Your task to perform on an android device: turn off priority inbox in the gmail app Image 0: 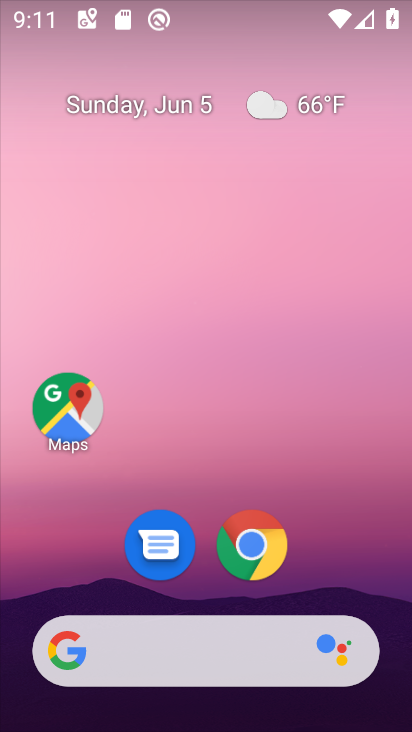
Step 0: drag from (359, 555) to (372, 95)
Your task to perform on an android device: turn off priority inbox in the gmail app Image 1: 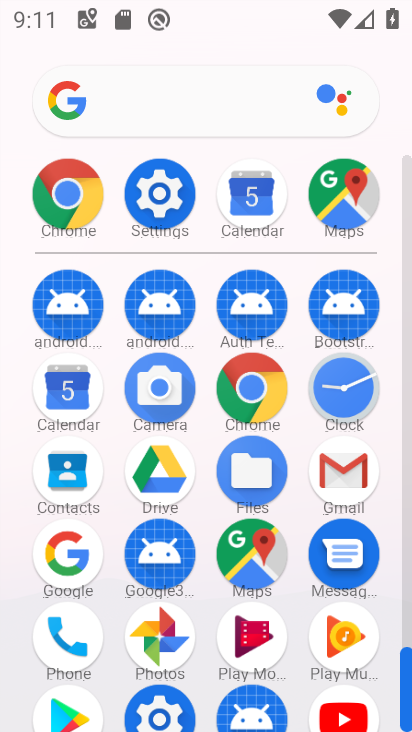
Step 1: click (345, 466)
Your task to perform on an android device: turn off priority inbox in the gmail app Image 2: 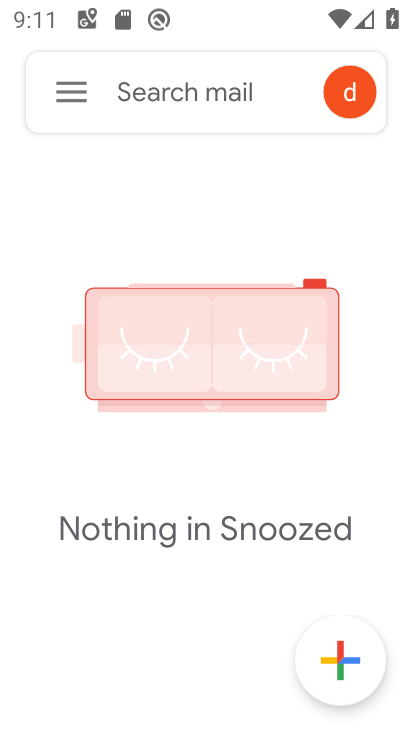
Step 2: click (73, 96)
Your task to perform on an android device: turn off priority inbox in the gmail app Image 3: 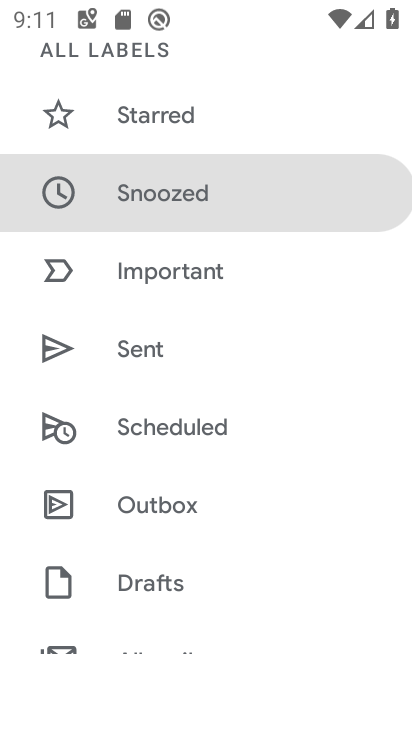
Step 3: drag from (292, 251) to (298, 323)
Your task to perform on an android device: turn off priority inbox in the gmail app Image 4: 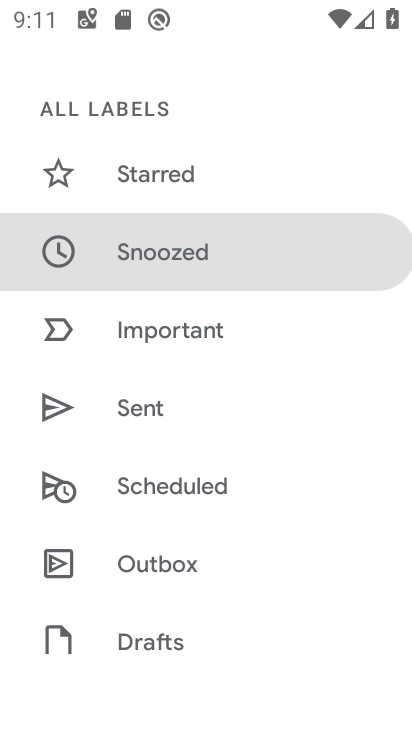
Step 4: drag from (310, 176) to (313, 290)
Your task to perform on an android device: turn off priority inbox in the gmail app Image 5: 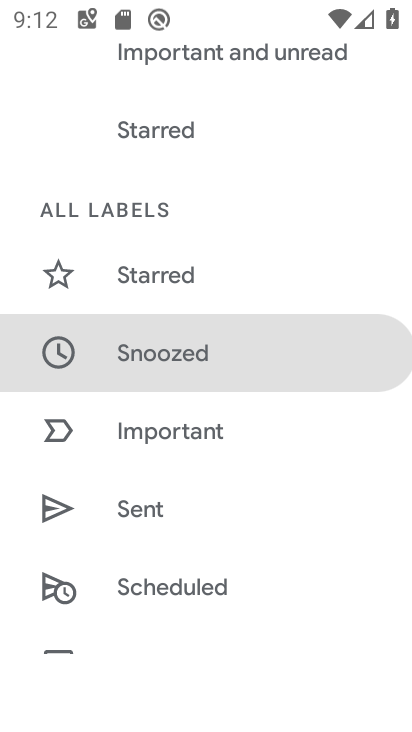
Step 5: drag from (315, 127) to (312, 259)
Your task to perform on an android device: turn off priority inbox in the gmail app Image 6: 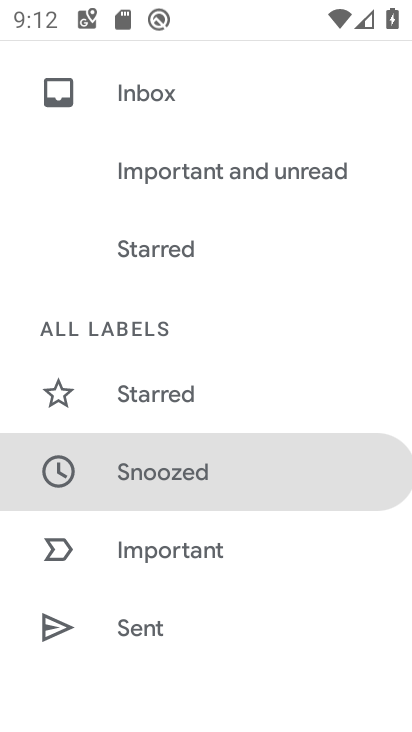
Step 6: drag from (324, 108) to (320, 327)
Your task to perform on an android device: turn off priority inbox in the gmail app Image 7: 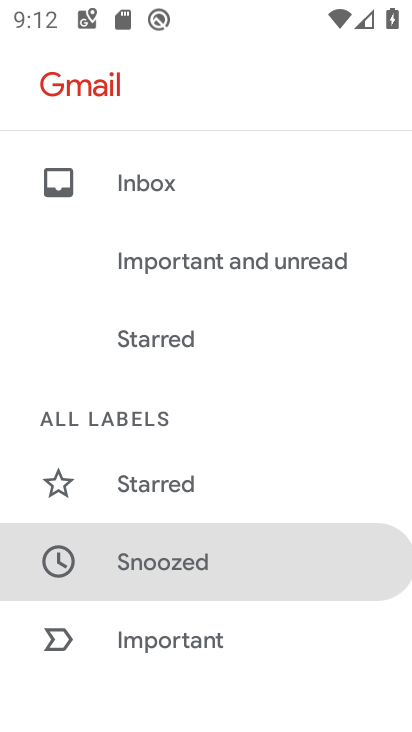
Step 7: drag from (323, 345) to (324, 201)
Your task to perform on an android device: turn off priority inbox in the gmail app Image 8: 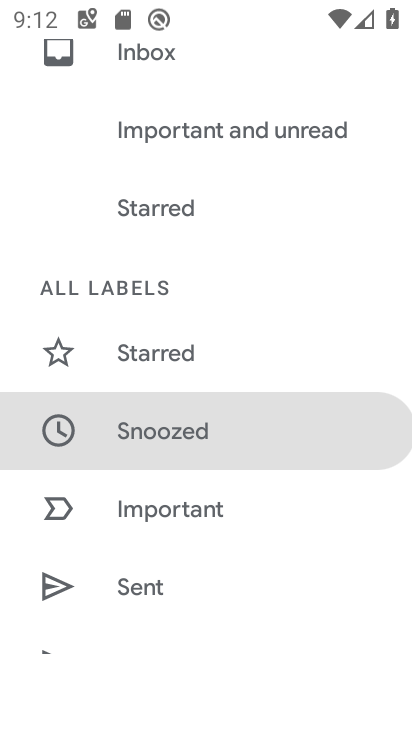
Step 8: drag from (328, 346) to (320, 206)
Your task to perform on an android device: turn off priority inbox in the gmail app Image 9: 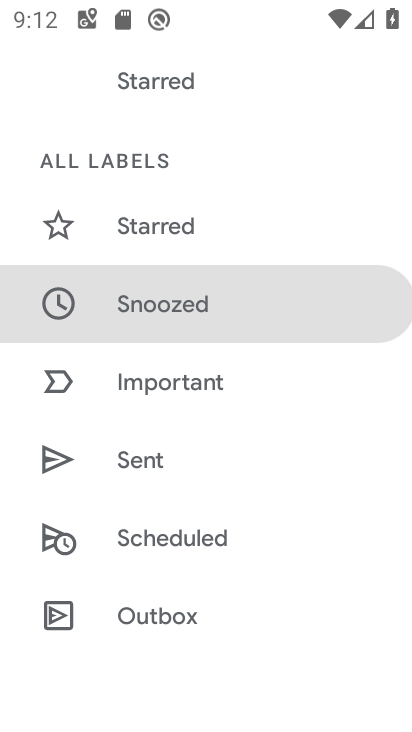
Step 9: drag from (321, 399) to (310, 238)
Your task to perform on an android device: turn off priority inbox in the gmail app Image 10: 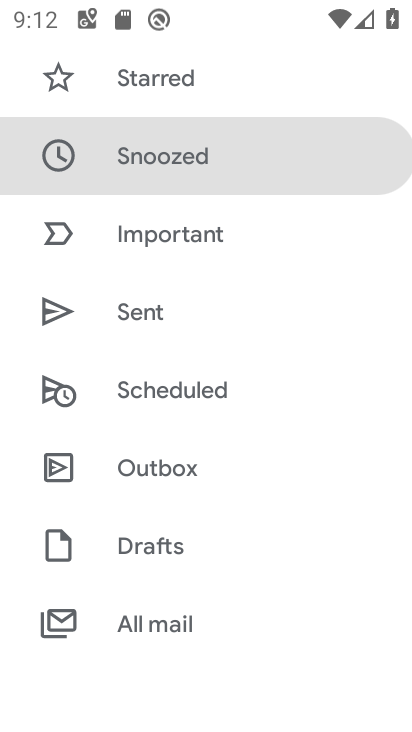
Step 10: drag from (307, 428) to (307, 239)
Your task to perform on an android device: turn off priority inbox in the gmail app Image 11: 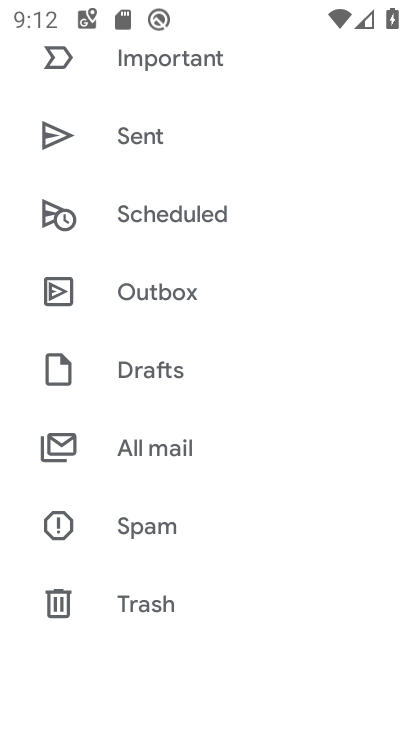
Step 11: drag from (309, 450) to (302, 179)
Your task to perform on an android device: turn off priority inbox in the gmail app Image 12: 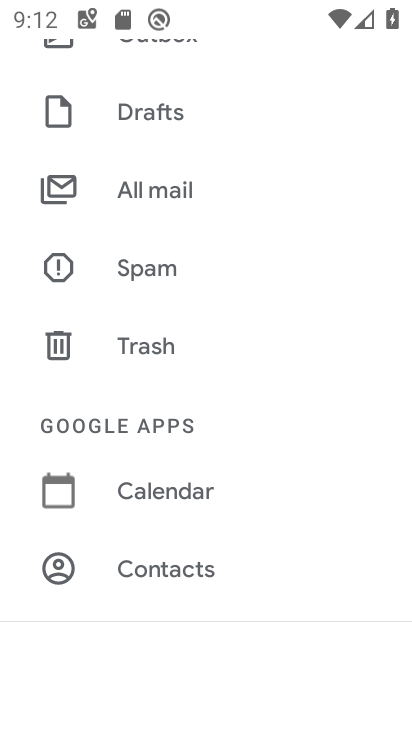
Step 12: drag from (287, 545) to (305, 299)
Your task to perform on an android device: turn off priority inbox in the gmail app Image 13: 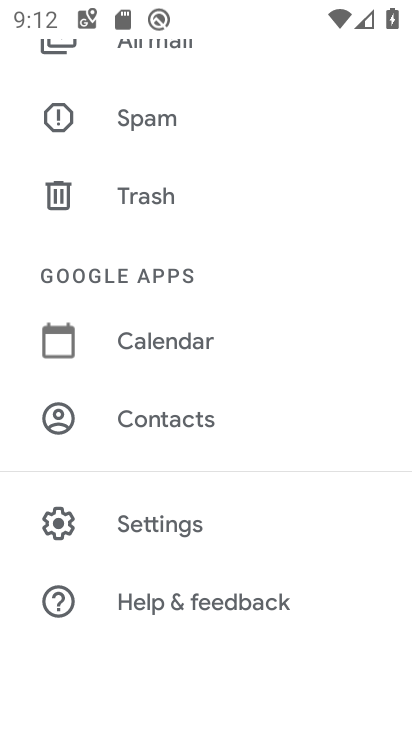
Step 13: click (236, 530)
Your task to perform on an android device: turn off priority inbox in the gmail app Image 14: 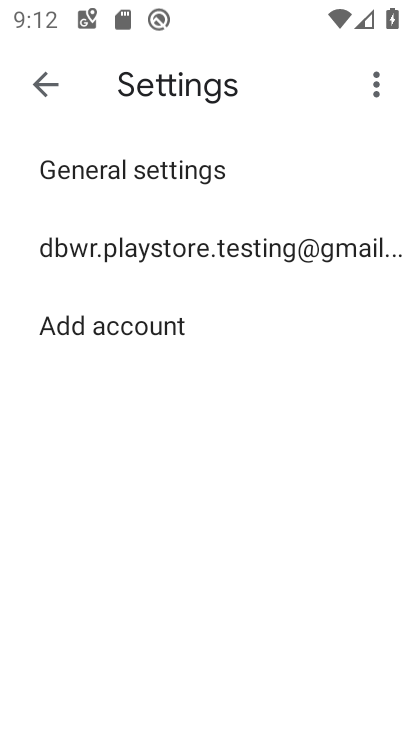
Step 14: click (221, 257)
Your task to perform on an android device: turn off priority inbox in the gmail app Image 15: 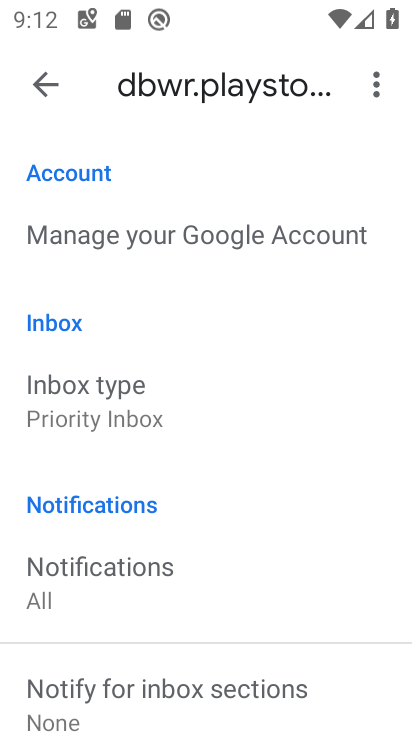
Step 15: drag from (296, 471) to (296, 308)
Your task to perform on an android device: turn off priority inbox in the gmail app Image 16: 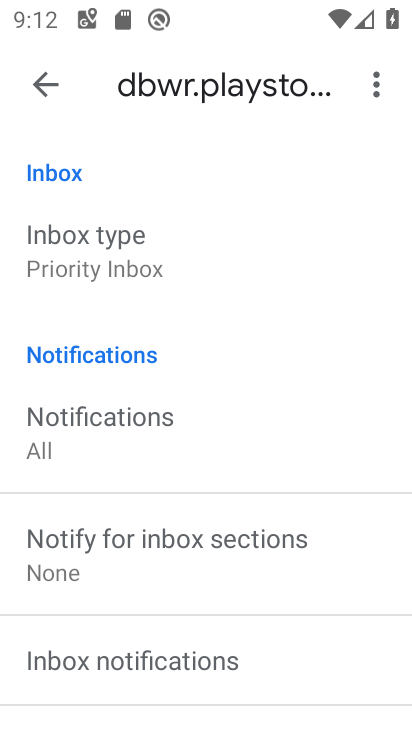
Step 16: drag from (336, 570) to (321, 315)
Your task to perform on an android device: turn off priority inbox in the gmail app Image 17: 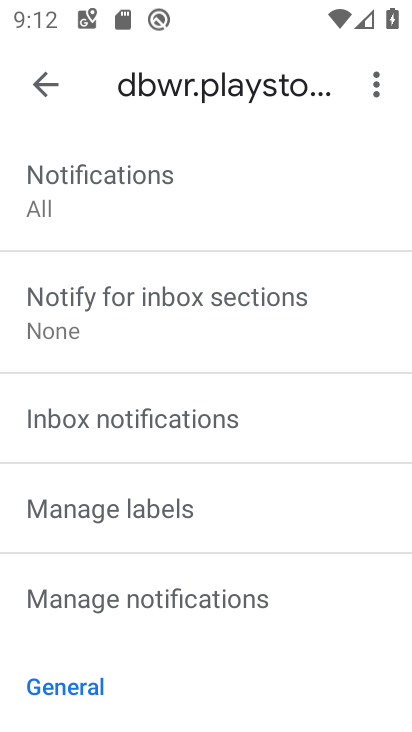
Step 17: drag from (339, 543) to (322, 349)
Your task to perform on an android device: turn off priority inbox in the gmail app Image 18: 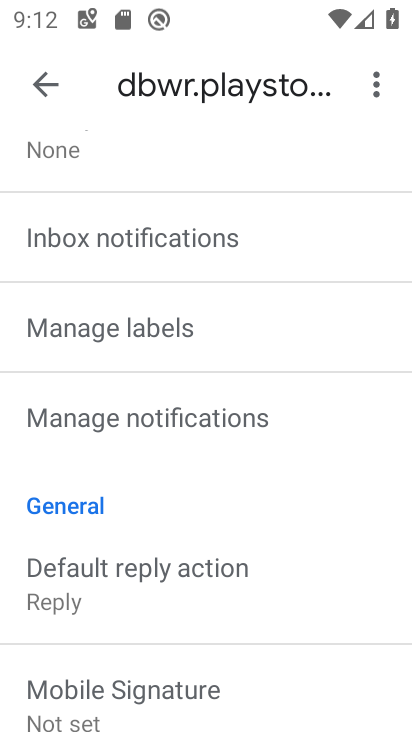
Step 18: drag from (338, 556) to (328, 341)
Your task to perform on an android device: turn off priority inbox in the gmail app Image 19: 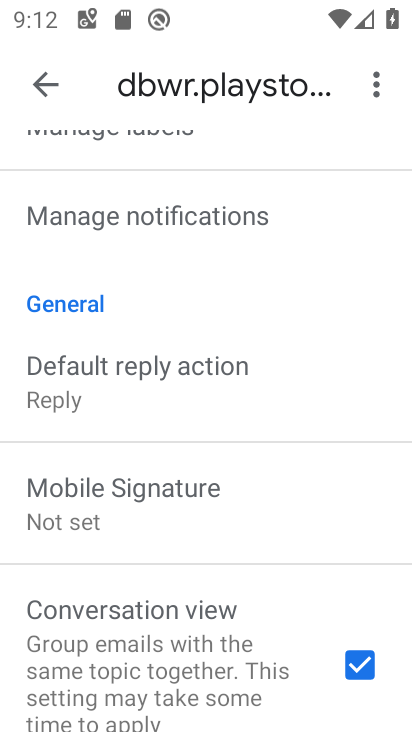
Step 19: drag from (312, 534) to (315, 287)
Your task to perform on an android device: turn off priority inbox in the gmail app Image 20: 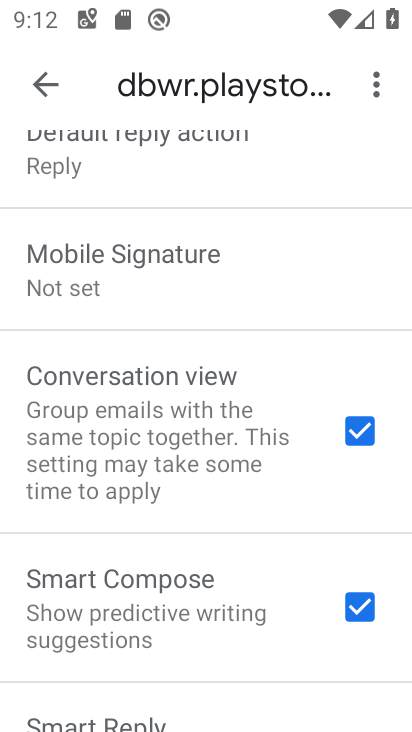
Step 20: drag from (287, 162) to (293, 327)
Your task to perform on an android device: turn off priority inbox in the gmail app Image 21: 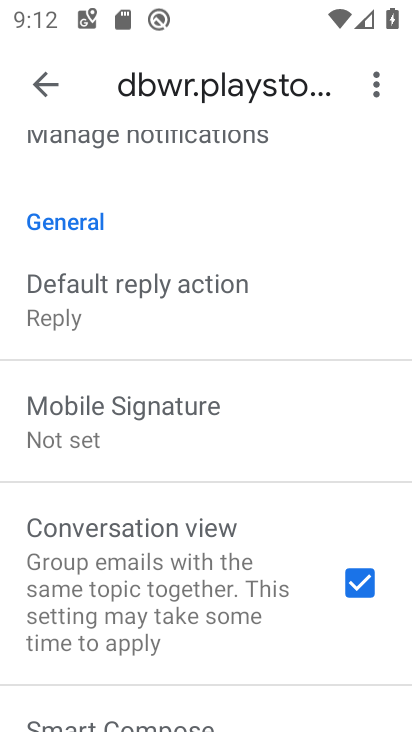
Step 21: drag from (299, 172) to (290, 349)
Your task to perform on an android device: turn off priority inbox in the gmail app Image 22: 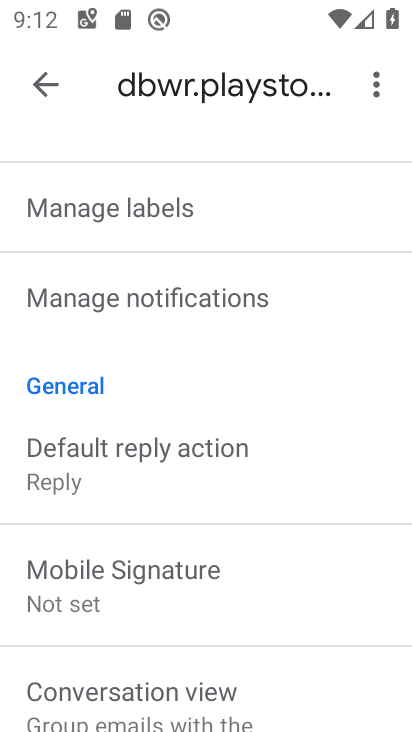
Step 22: drag from (293, 187) to (310, 362)
Your task to perform on an android device: turn off priority inbox in the gmail app Image 23: 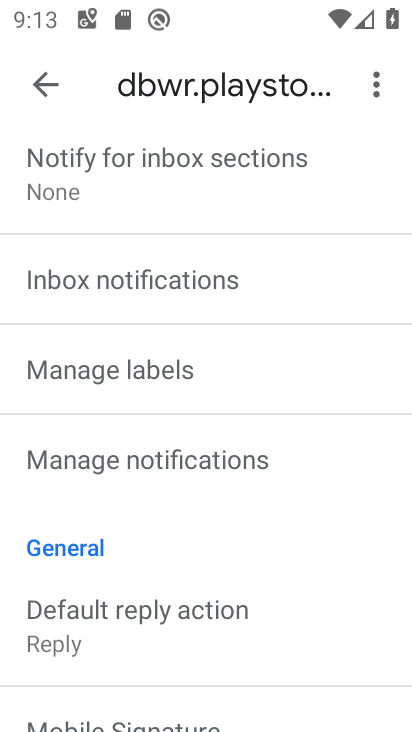
Step 23: drag from (295, 182) to (296, 382)
Your task to perform on an android device: turn off priority inbox in the gmail app Image 24: 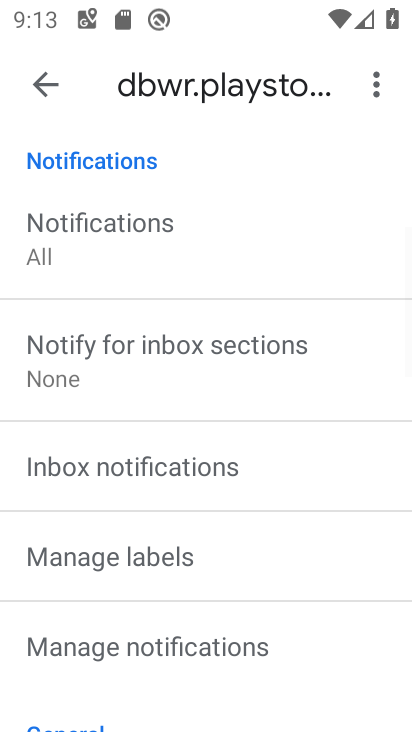
Step 24: drag from (257, 176) to (272, 406)
Your task to perform on an android device: turn off priority inbox in the gmail app Image 25: 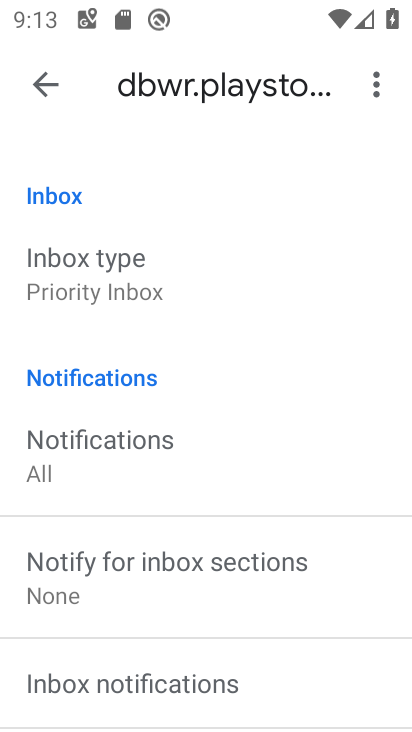
Step 25: click (91, 288)
Your task to perform on an android device: turn off priority inbox in the gmail app Image 26: 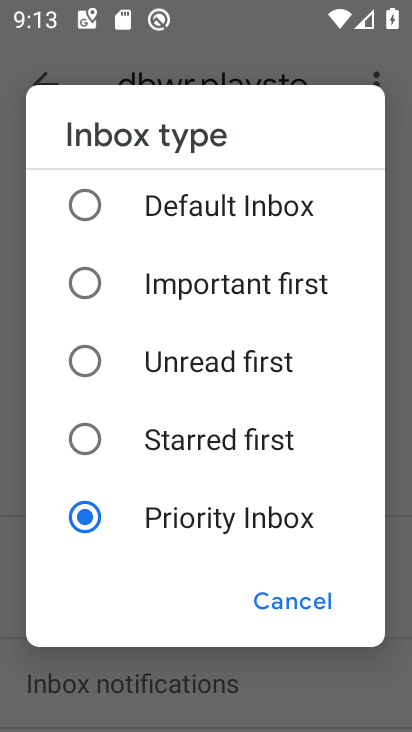
Step 26: click (85, 207)
Your task to perform on an android device: turn off priority inbox in the gmail app Image 27: 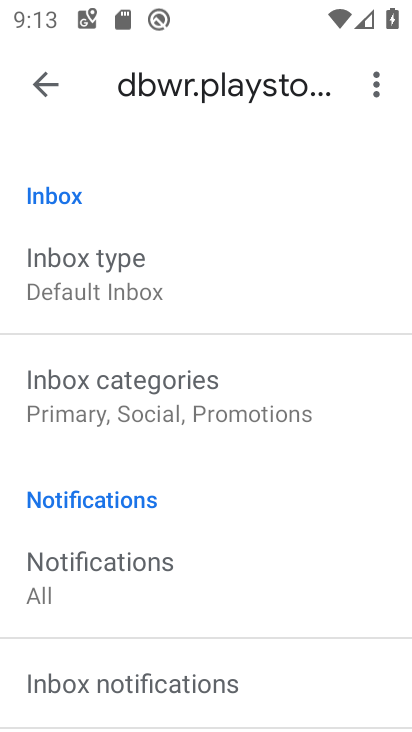
Step 27: task complete